Your task to perform on an android device: Search for seafood restaurants on Google Maps Image 0: 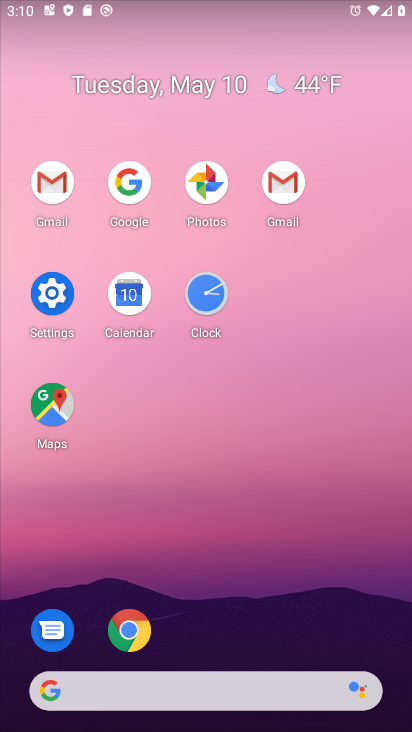
Step 0: click (41, 419)
Your task to perform on an android device: Search for seafood restaurants on Google Maps Image 1: 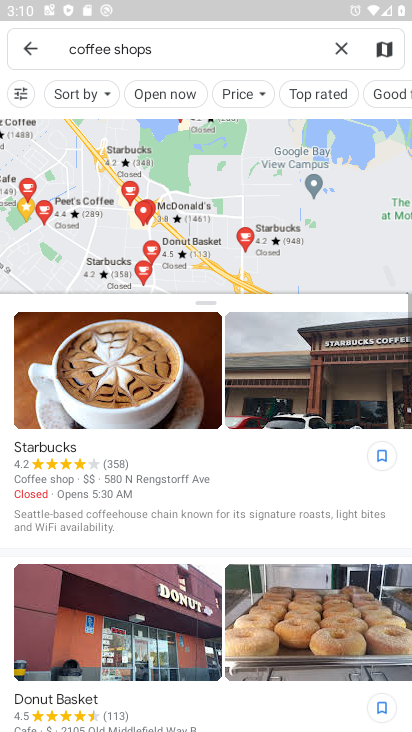
Step 1: click (352, 56)
Your task to perform on an android device: Search for seafood restaurants on Google Maps Image 2: 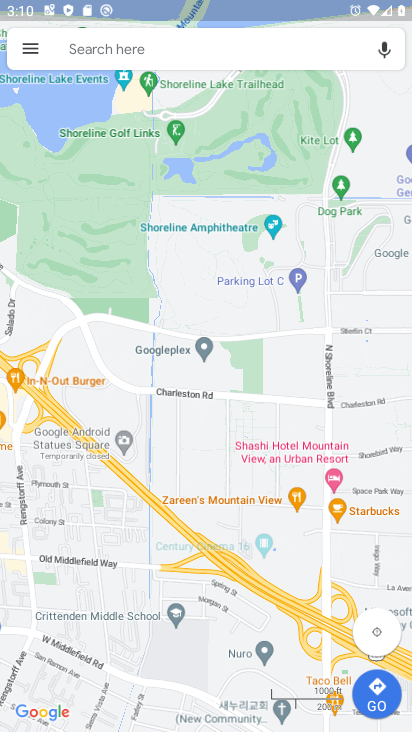
Step 2: click (246, 47)
Your task to perform on an android device: Search for seafood restaurants on Google Maps Image 3: 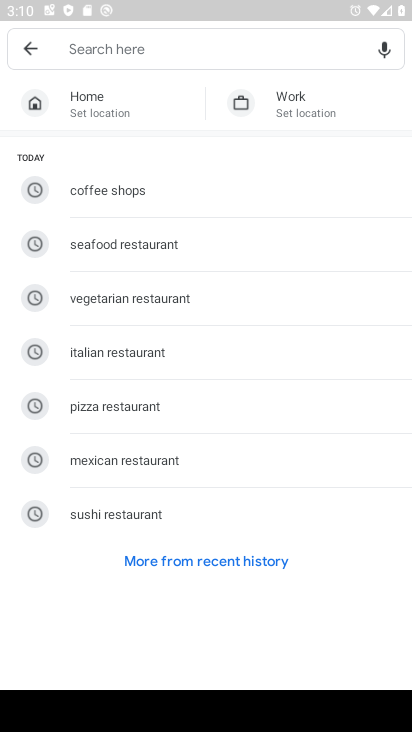
Step 3: click (209, 230)
Your task to perform on an android device: Search for seafood restaurants on Google Maps Image 4: 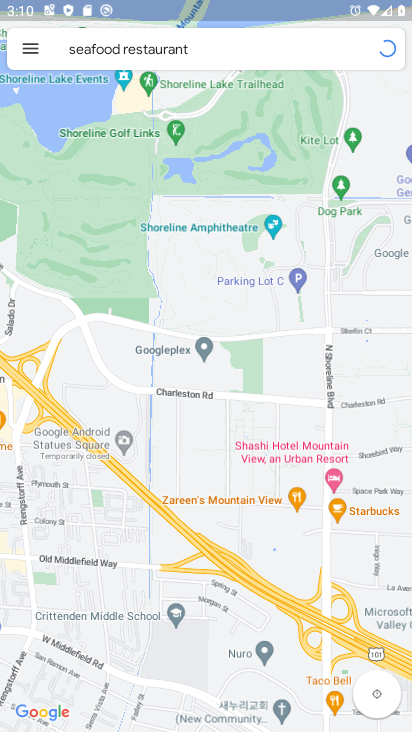
Step 4: task complete